Your task to perform on an android device: change the clock display to analog Image 0: 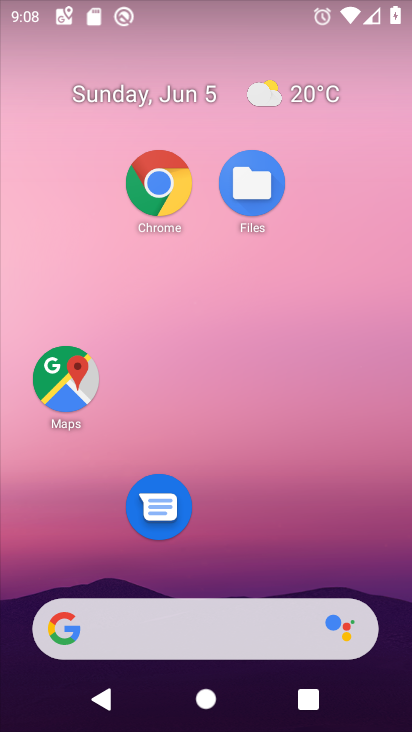
Step 0: drag from (208, 567) to (220, 40)
Your task to perform on an android device: change the clock display to analog Image 1: 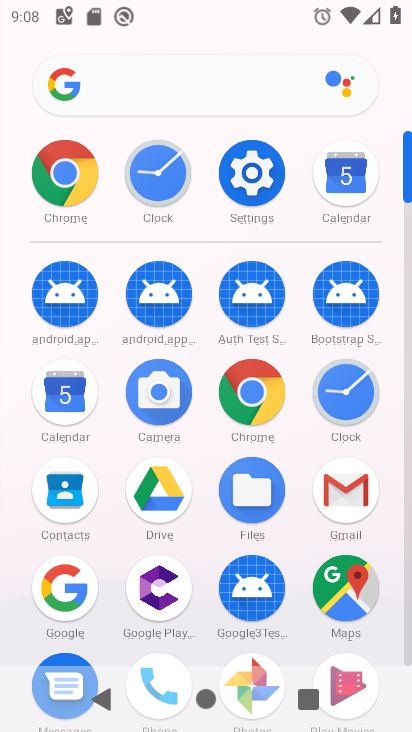
Step 1: click (358, 413)
Your task to perform on an android device: change the clock display to analog Image 2: 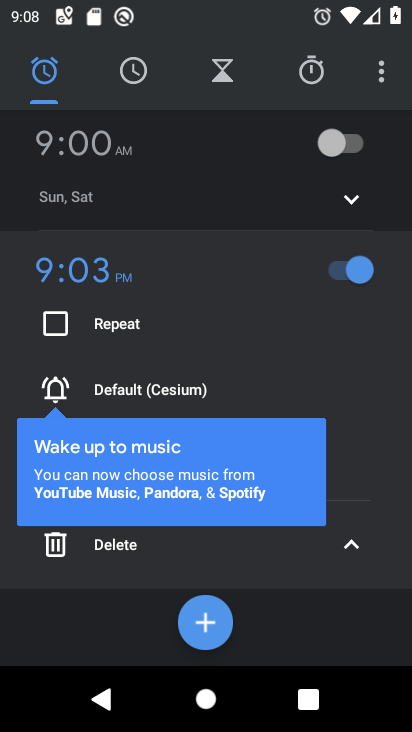
Step 2: click (377, 72)
Your task to perform on an android device: change the clock display to analog Image 3: 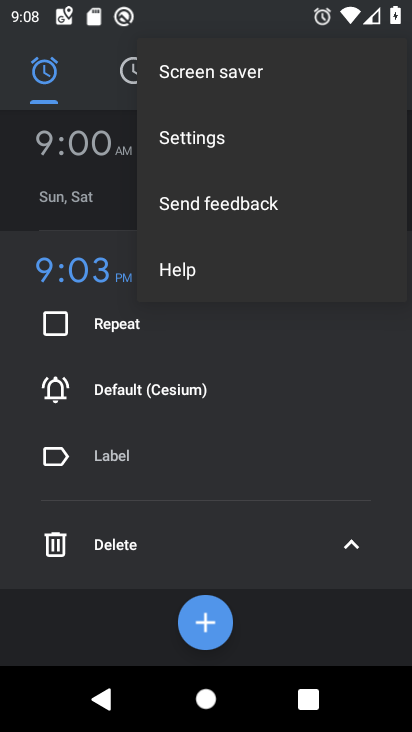
Step 3: click (204, 142)
Your task to perform on an android device: change the clock display to analog Image 4: 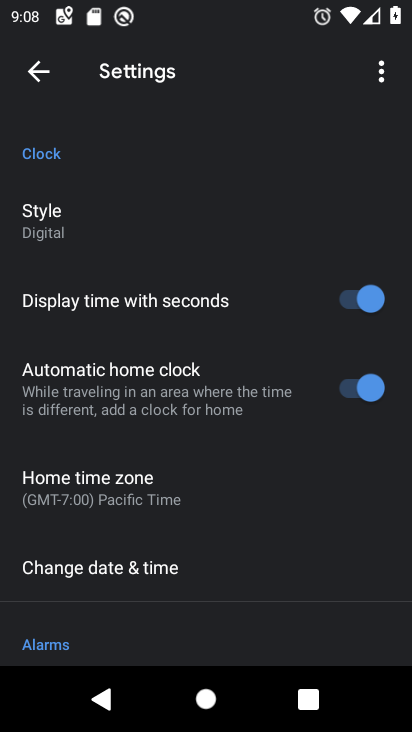
Step 4: click (50, 220)
Your task to perform on an android device: change the clock display to analog Image 5: 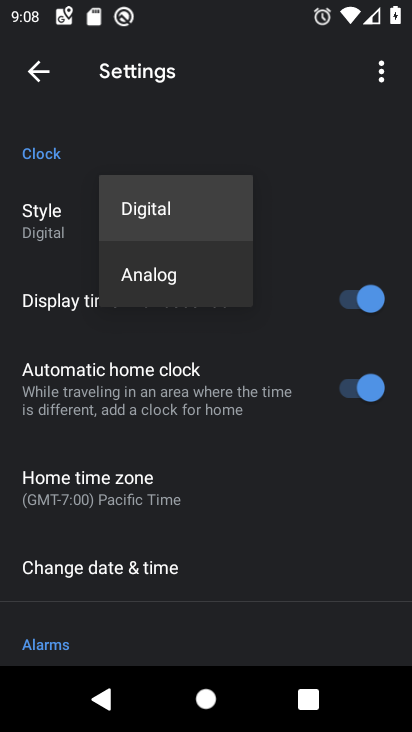
Step 5: click (152, 278)
Your task to perform on an android device: change the clock display to analog Image 6: 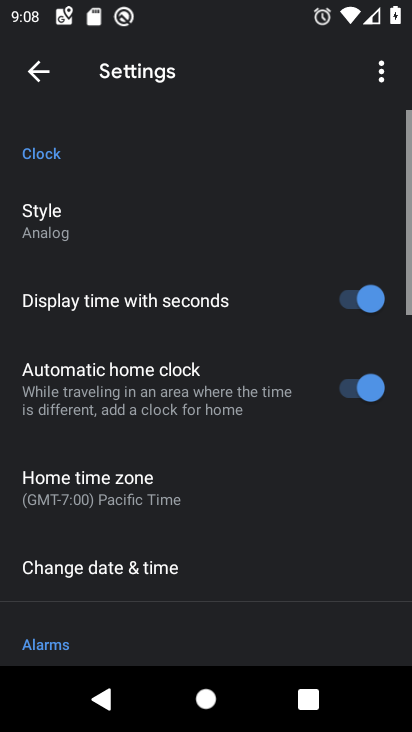
Step 6: task complete